Your task to perform on an android device: Do I have any events today? Image 0: 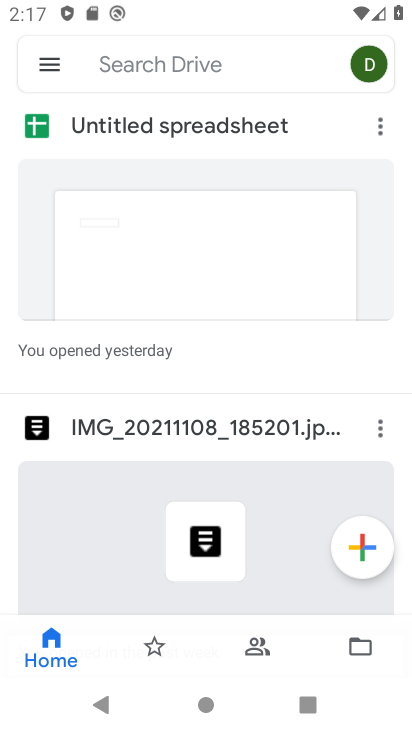
Step 0: press home button
Your task to perform on an android device: Do I have any events today? Image 1: 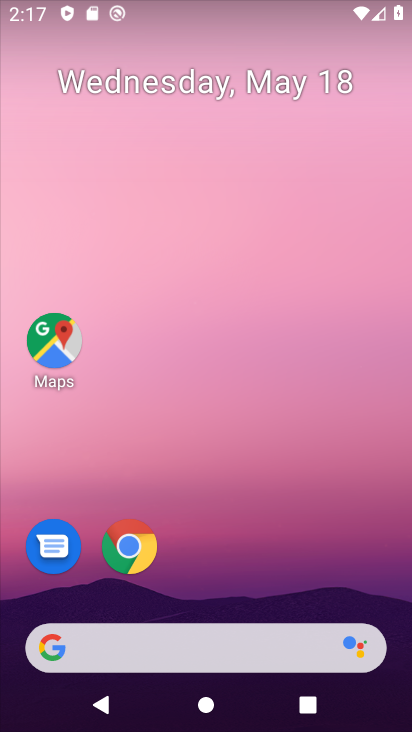
Step 1: drag from (250, 701) to (258, 54)
Your task to perform on an android device: Do I have any events today? Image 2: 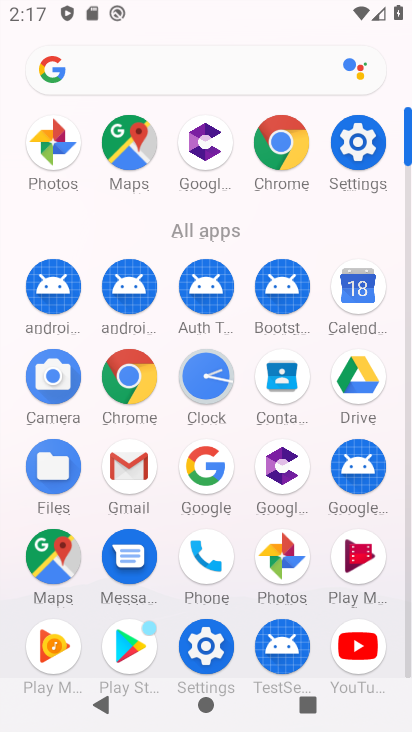
Step 2: click (366, 285)
Your task to perform on an android device: Do I have any events today? Image 3: 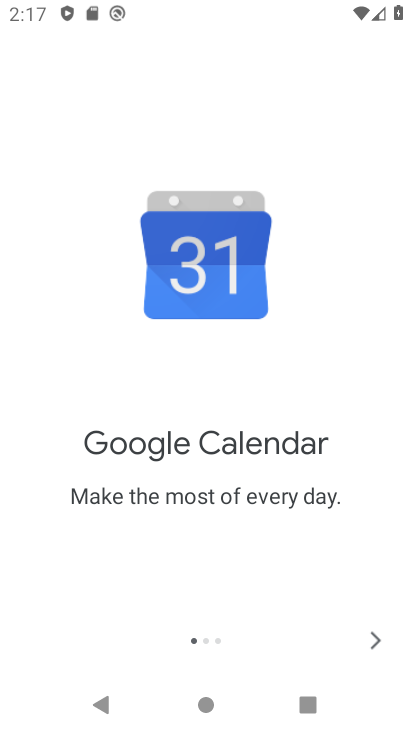
Step 3: click (375, 641)
Your task to perform on an android device: Do I have any events today? Image 4: 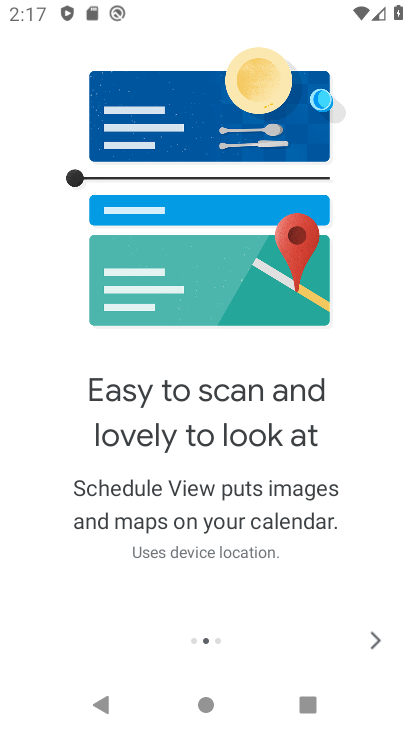
Step 4: click (375, 641)
Your task to perform on an android device: Do I have any events today? Image 5: 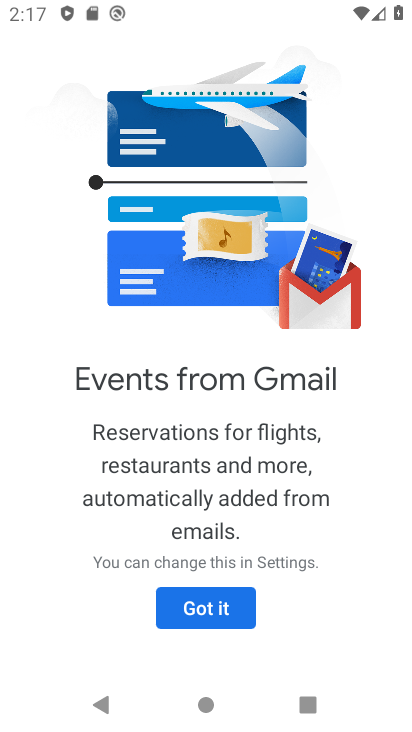
Step 5: click (215, 611)
Your task to perform on an android device: Do I have any events today? Image 6: 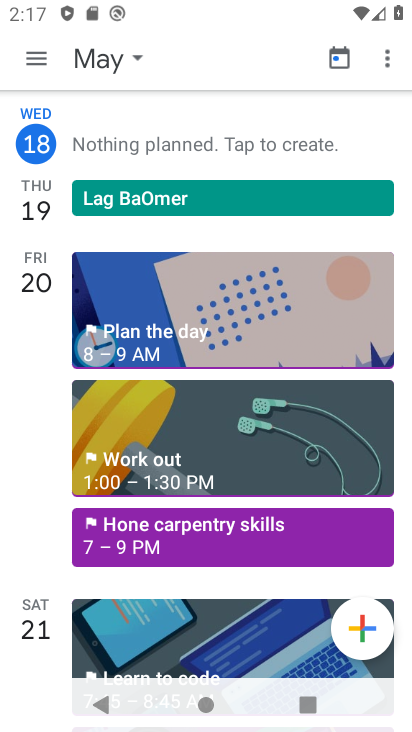
Step 6: click (94, 57)
Your task to perform on an android device: Do I have any events today? Image 7: 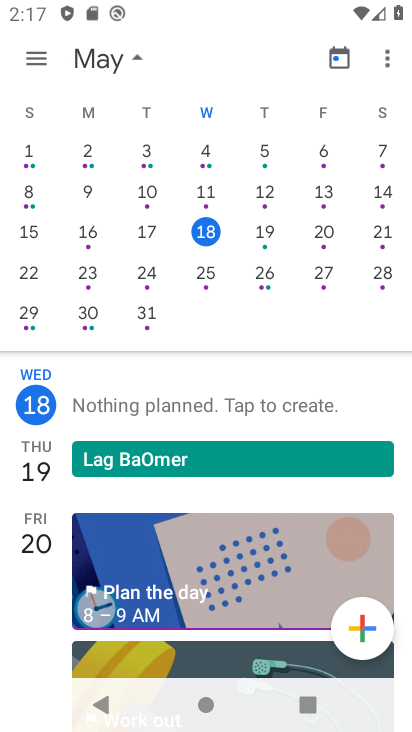
Step 7: click (41, 62)
Your task to perform on an android device: Do I have any events today? Image 8: 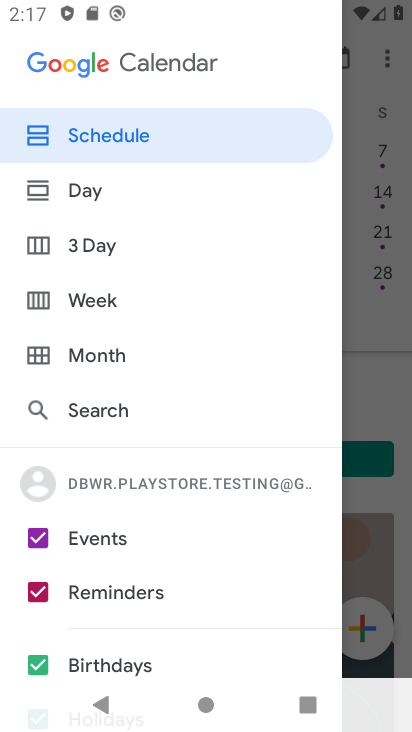
Step 8: click (38, 657)
Your task to perform on an android device: Do I have any events today? Image 9: 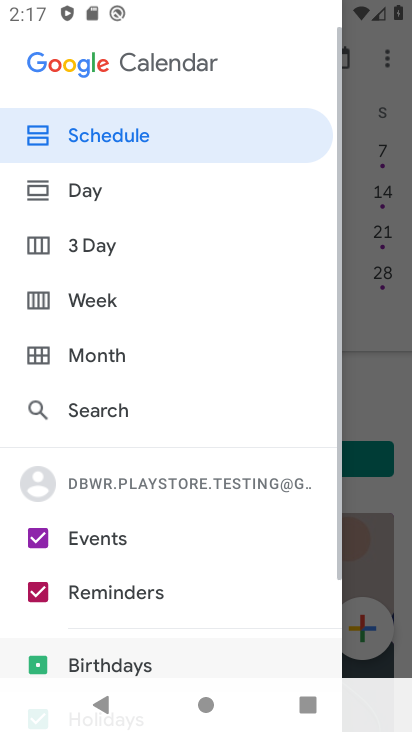
Step 9: drag from (202, 627) to (204, 445)
Your task to perform on an android device: Do I have any events today? Image 10: 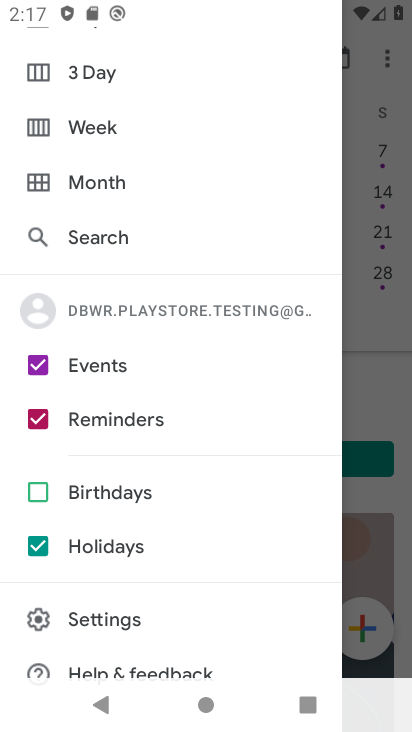
Step 10: click (34, 543)
Your task to perform on an android device: Do I have any events today? Image 11: 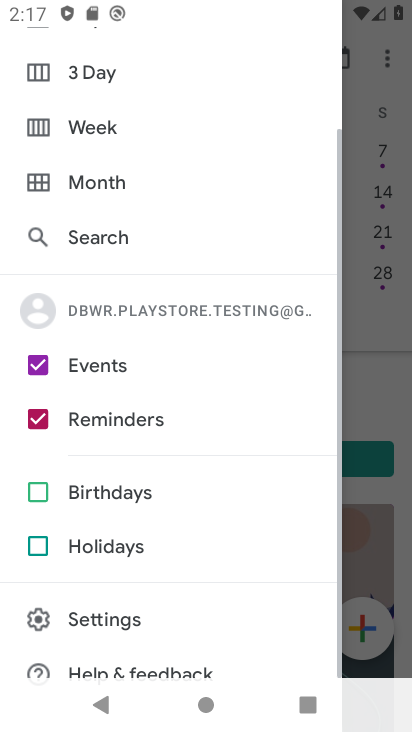
Step 11: click (32, 416)
Your task to perform on an android device: Do I have any events today? Image 12: 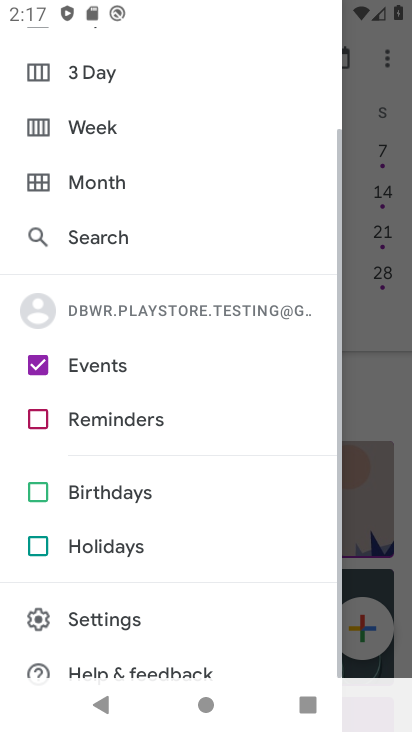
Step 12: drag from (176, 135) to (184, 336)
Your task to perform on an android device: Do I have any events today? Image 13: 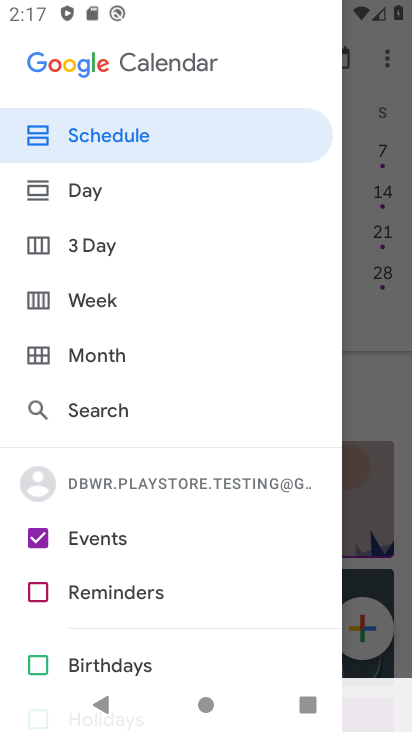
Step 13: click (132, 130)
Your task to perform on an android device: Do I have any events today? Image 14: 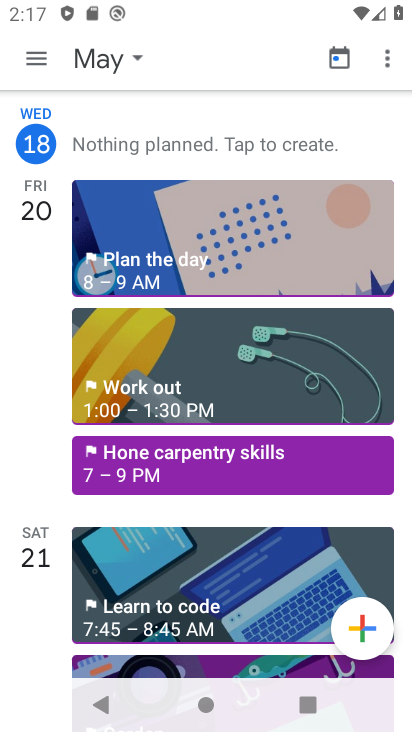
Step 14: task complete